Your task to perform on an android device: turn pop-ups on in chrome Image 0: 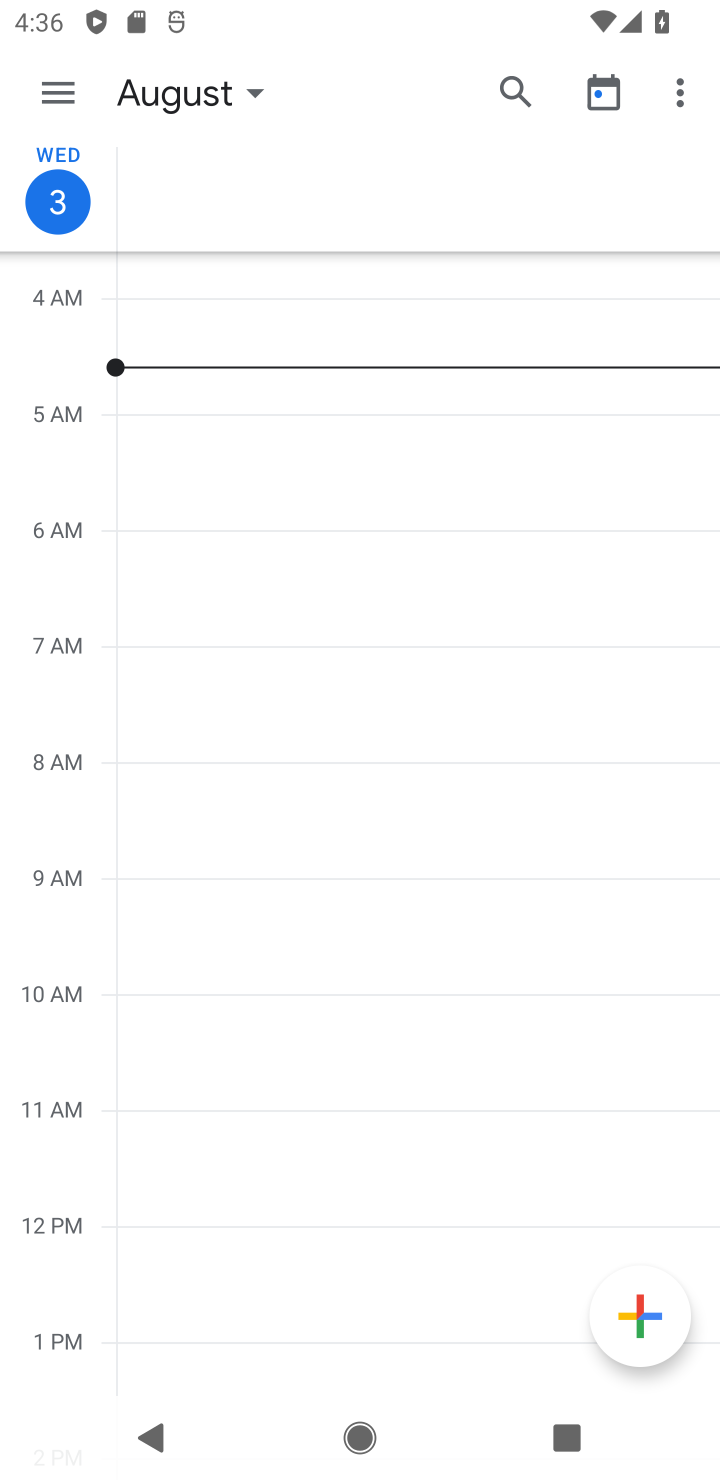
Step 0: press home button
Your task to perform on an android device: turn pop-ups on in chrome Image 1: 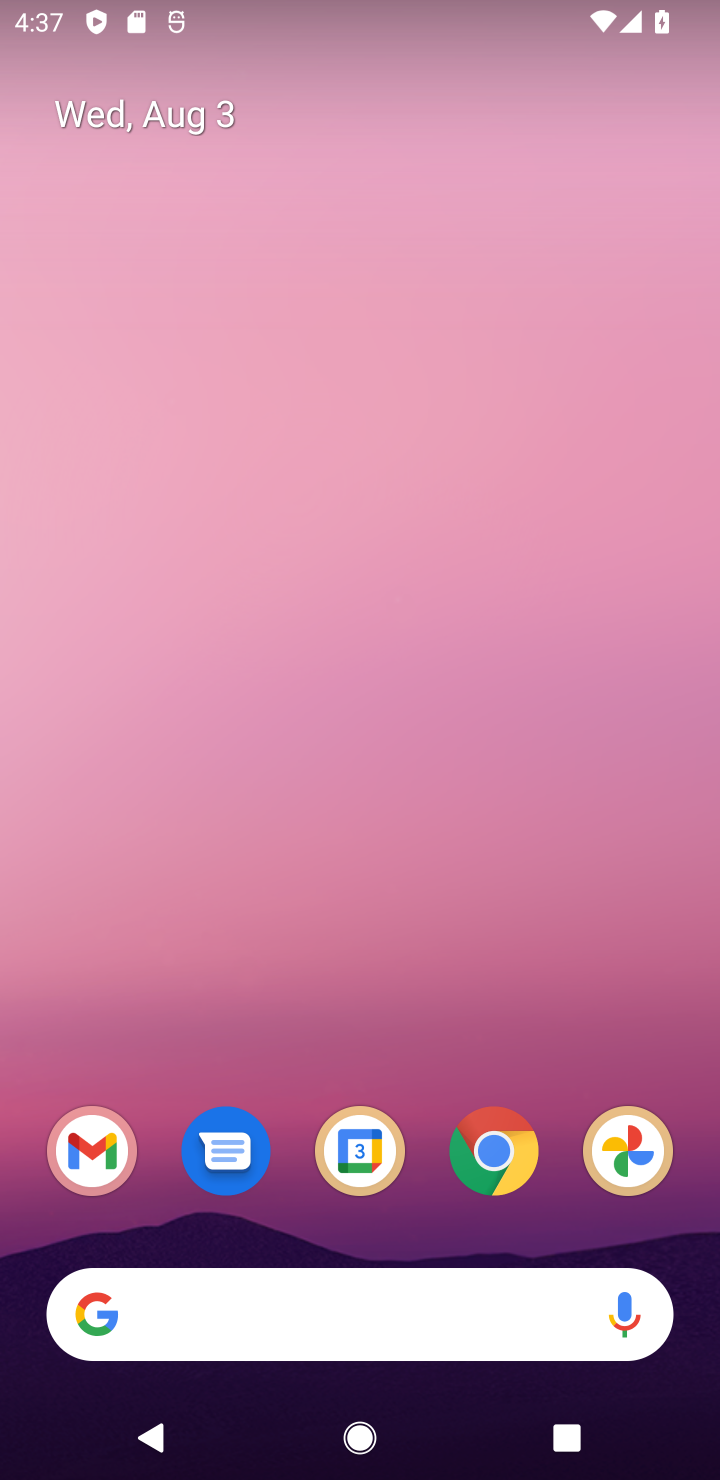
Step 1: click (501, 1152)
Your task to perform on an android device: turn pop-ups on in chrome Image 2: 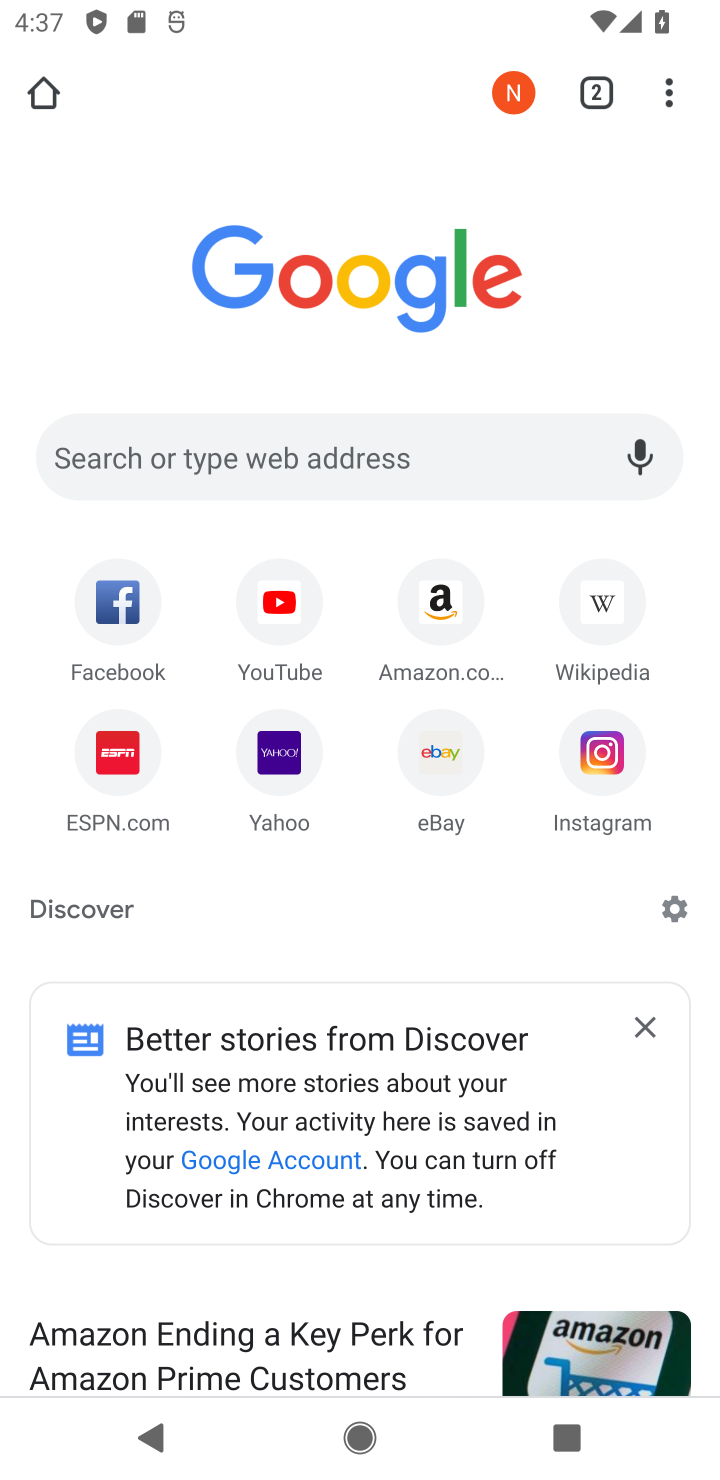
Step 2: click (684, 90)
Your task to perform on an android device: turn pop-ups on in chrome Image 3: 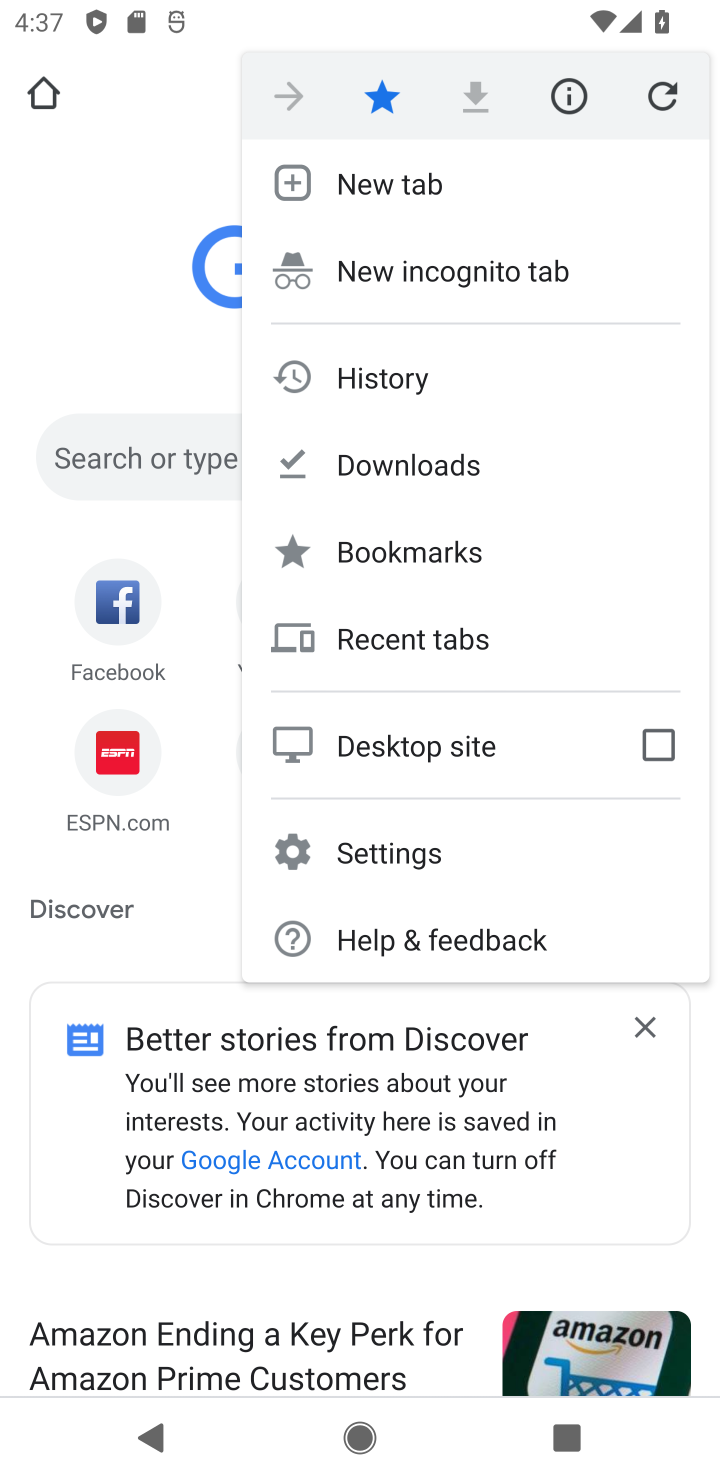
Step 3: click (416, 828)
Your task to perform on an android device: turn pop-ups on in chrome Image 4: 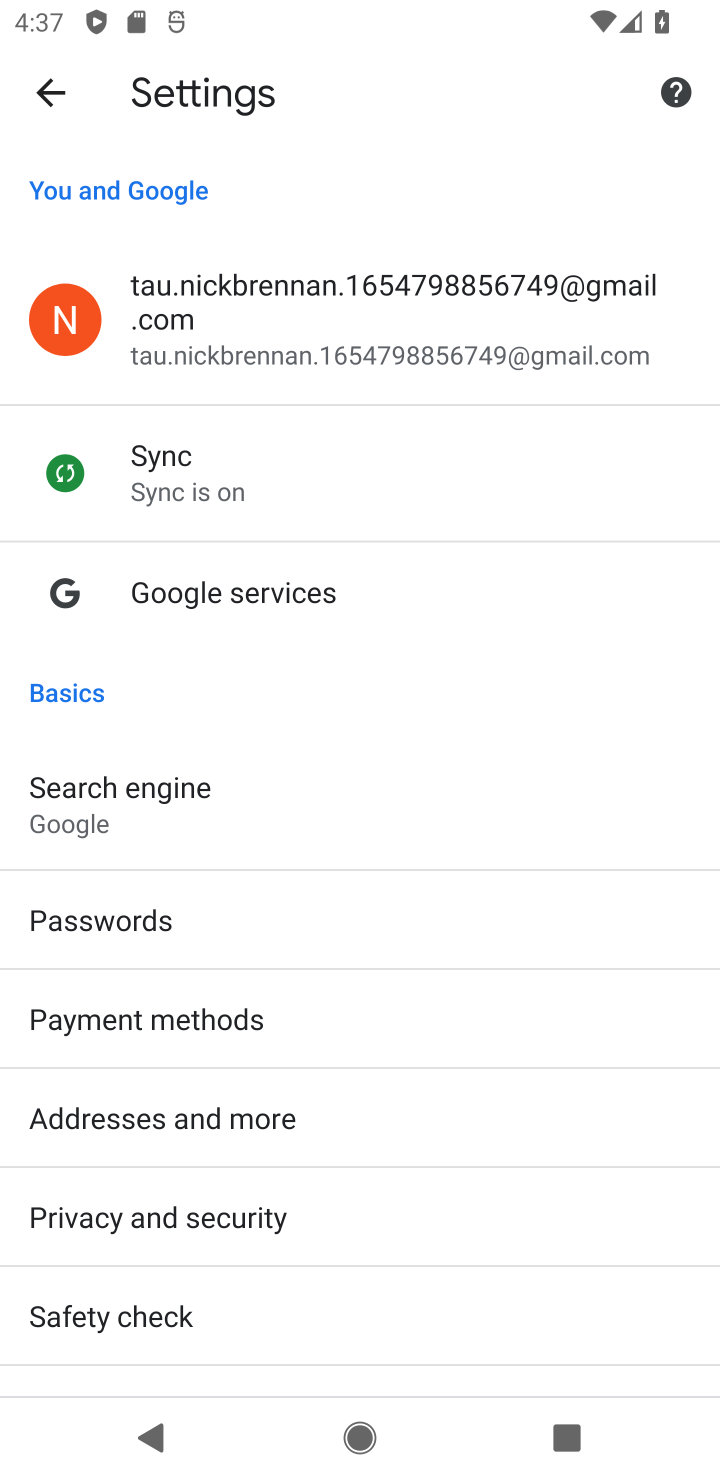
Step 4: drag from (337, 1203) to (307, 836)
Your task to perform on an android device: turn pop-ups on in chrome Image 5: 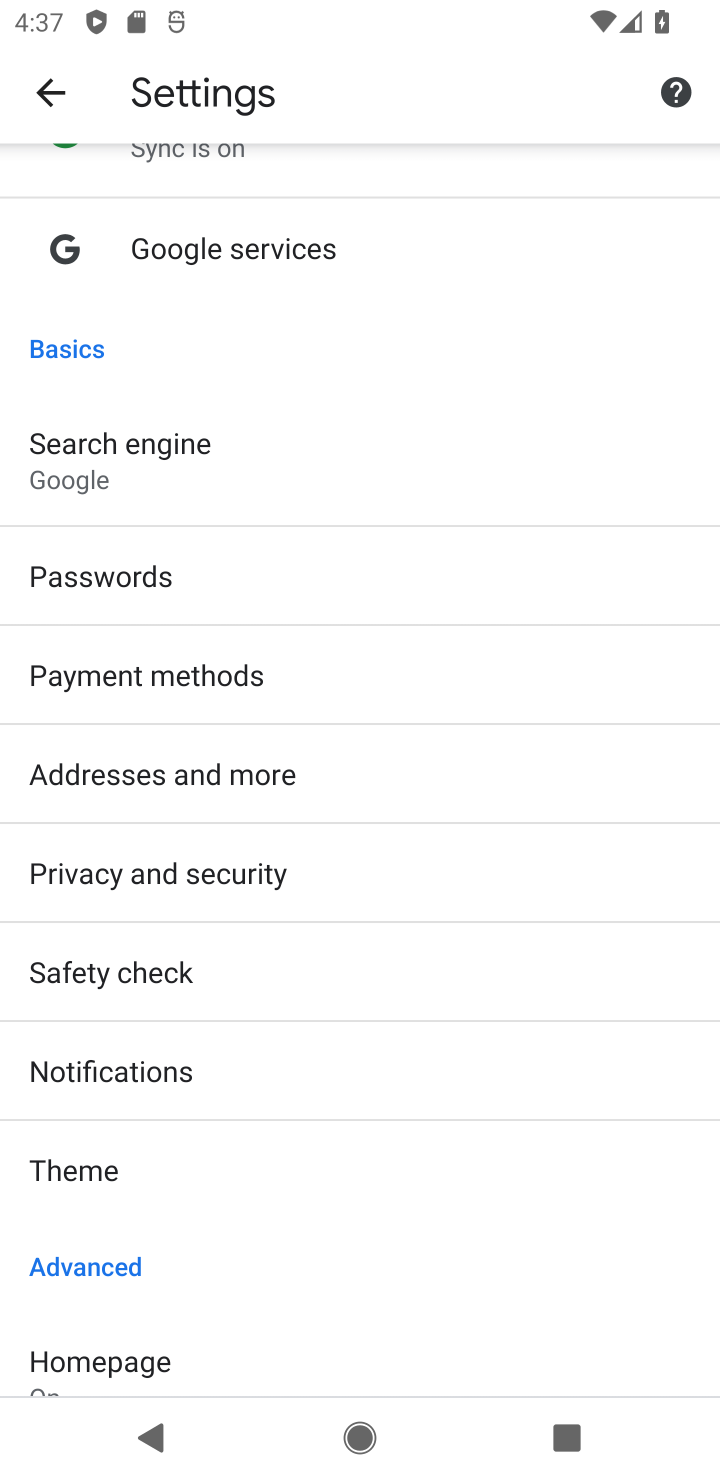
Step 5: drag from (224, 1249) to (206, 764)
Your task to perform on an android device: turn pop-ups on in chrome Image 6: 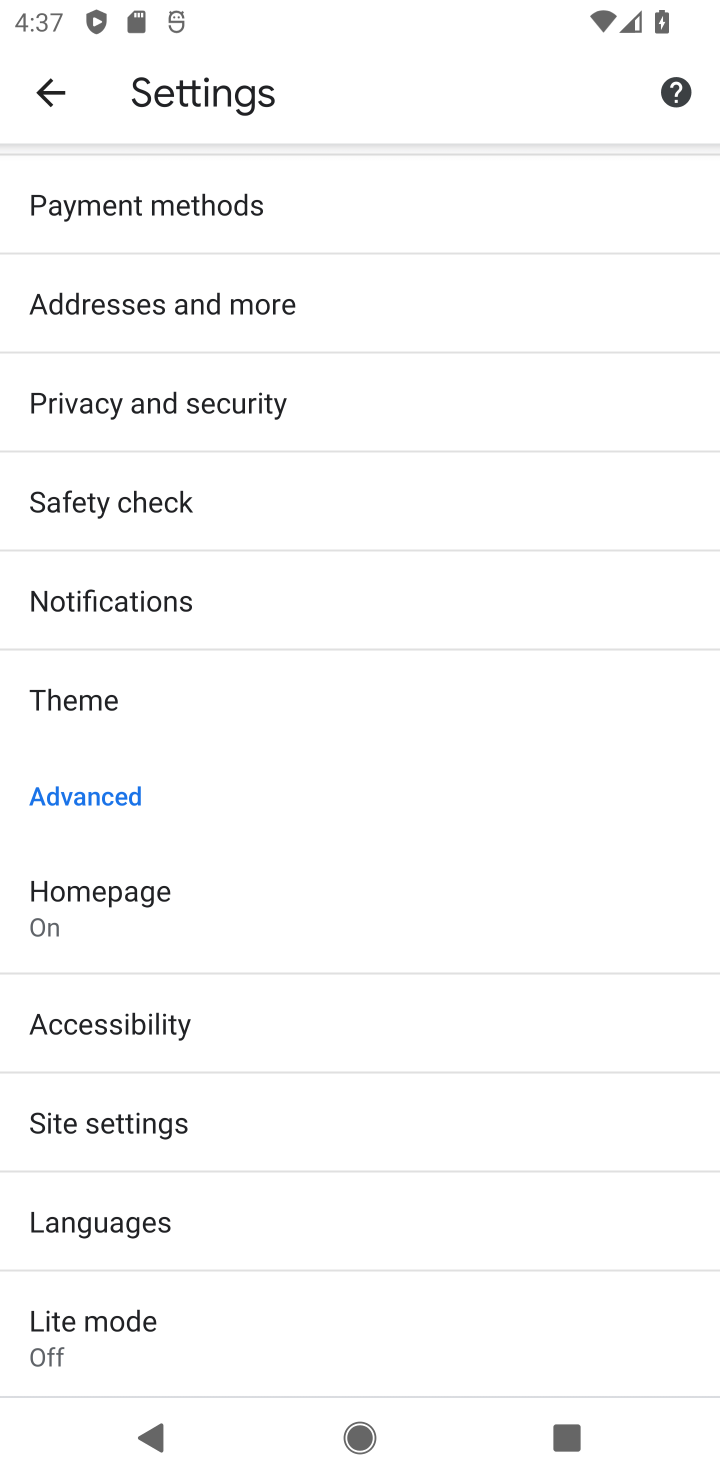
Step 6: click (298, 1096)
Your task to perform on an android device: turn pop-ups on in chrome Image 7: 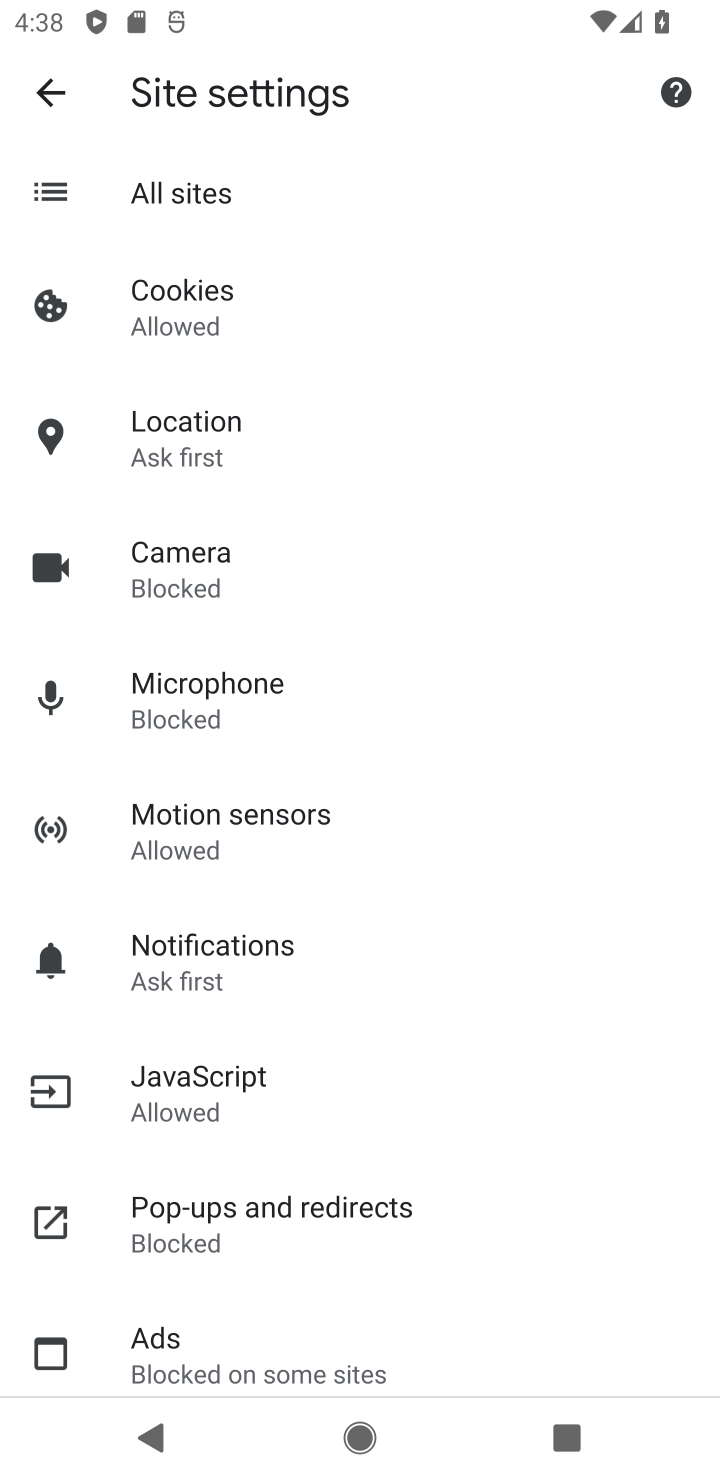
Step 7: drag from (258, 1081) to (282, 611)
Your task to perform on an android device: turn pop-ups on in chrome Image 8: 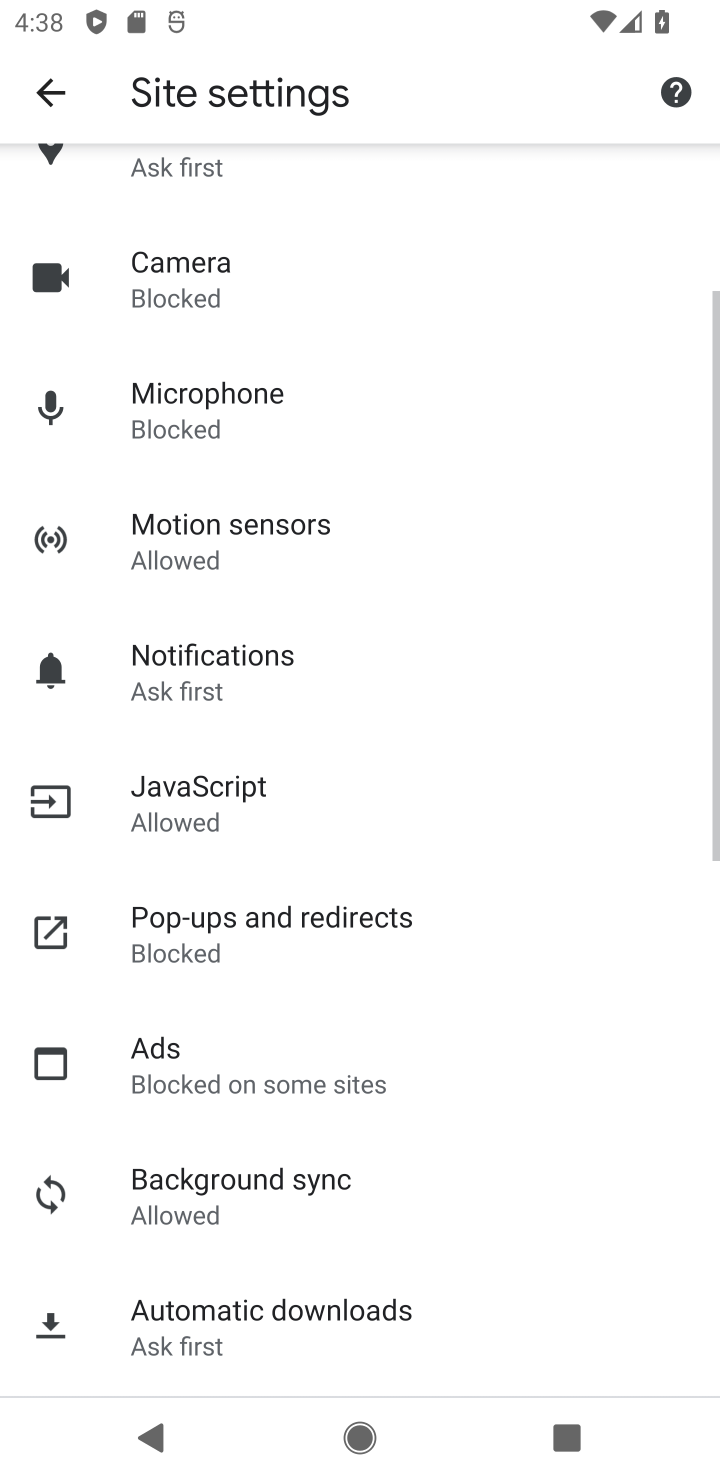
Step 8: click (392, 916)
Your task to perform on an android device: turn pop-ups on in chrome Image 9: 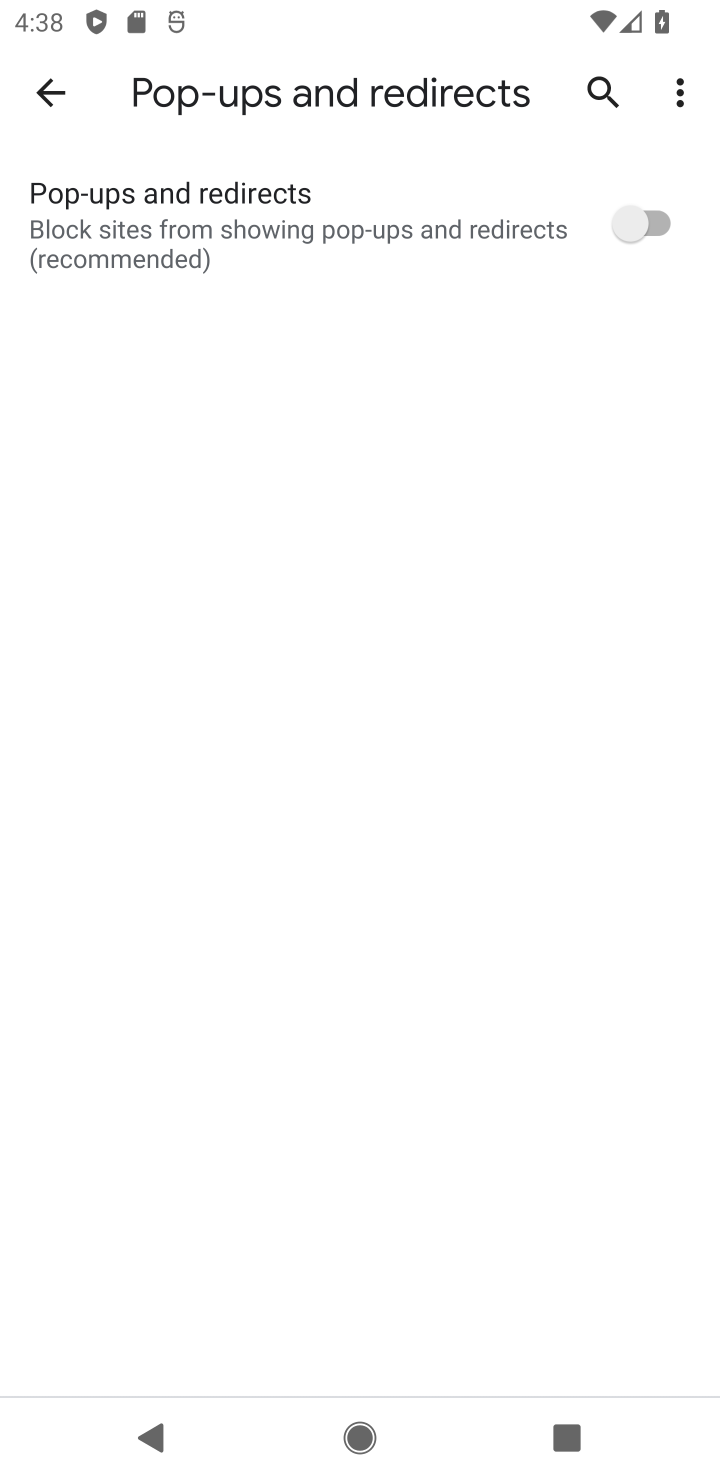
Step 9: click (657, 227)
Your task to perform on an android device: turn pop-ups on in chrome Image 10: 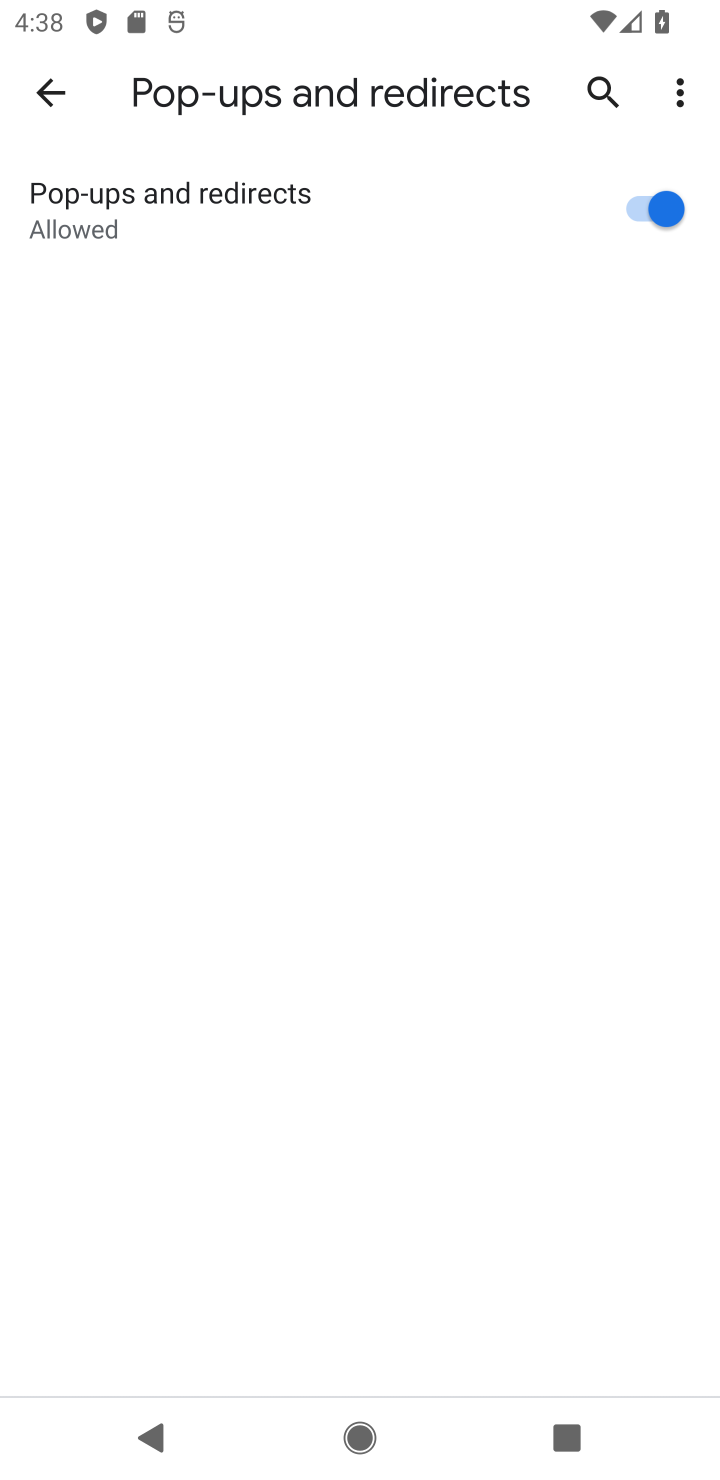
Step 10: task complete